Your task to perform on an android device: Open Reddit.com Image 0: 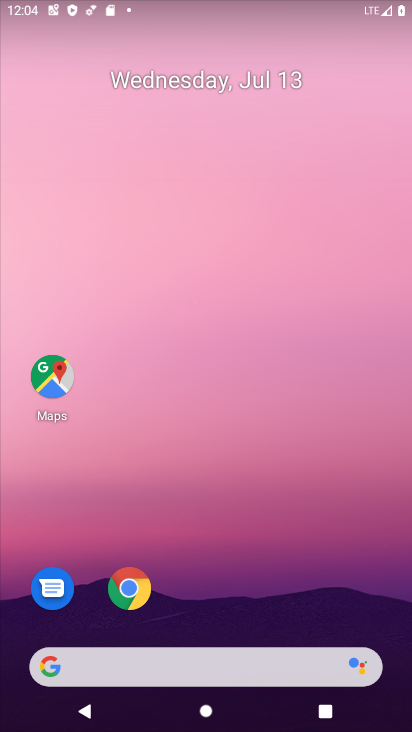
Step 0: click (142, 589)
Your task to perform on an android device: Open Reddit.com Image 1: 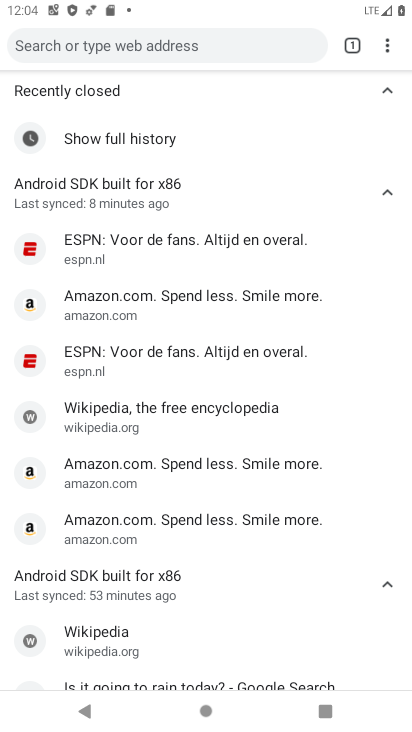
Step 1: click (200, 52)
Your task to perform on an android device: Open Reddit.com Image 2: 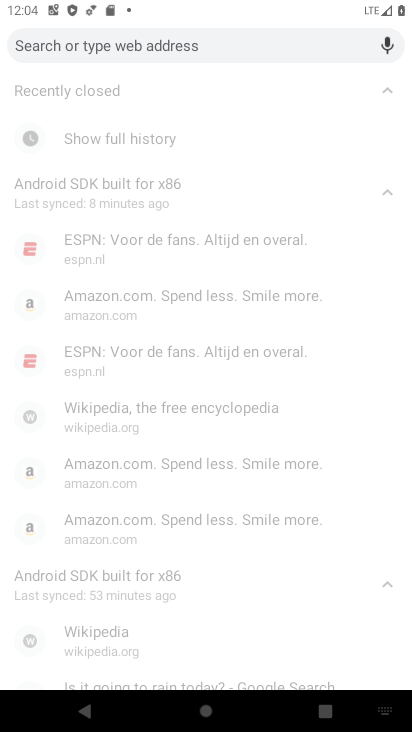
Step 2: type "Reddit.com"
Your task to perform on an android device: Open Reddit.com Image 3: 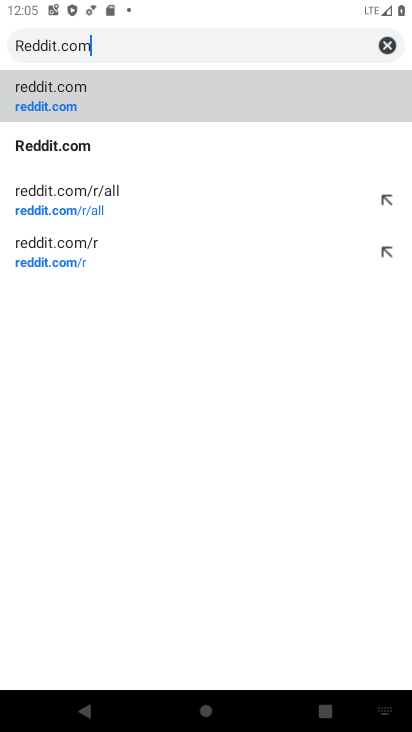
Step 3: click (72, 139)
Your task to perform on an android device: Open Reddit.com Image 4: 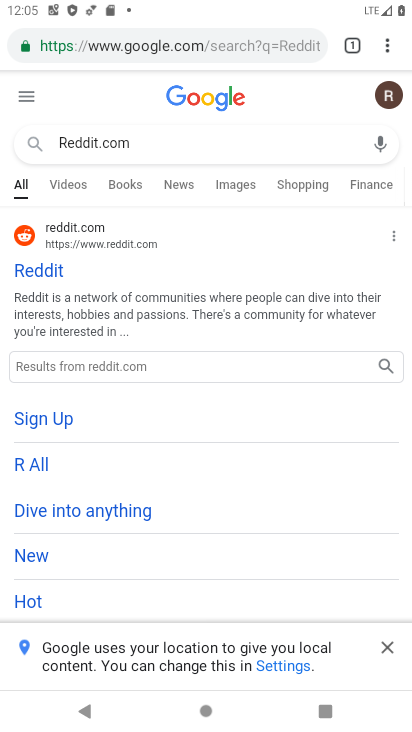
Step 4: task complete